Your task to perform on an android device: Check the weather Image 0: 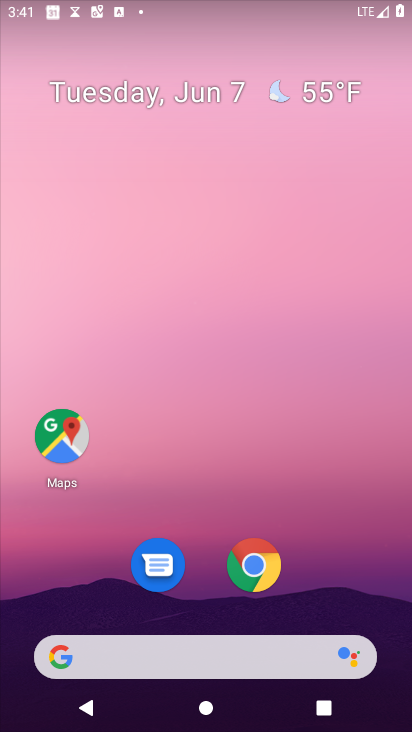
Step 0: drag from (194, 638) to (200, 55)
Your task to perform on an android device: Check the weather Image 1: 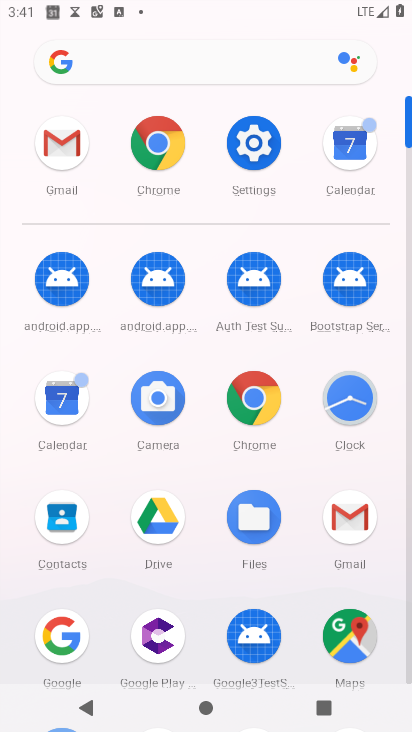
Step 1: click (68, 387)
Your task to perform on an android device: Check the weather Image 2: 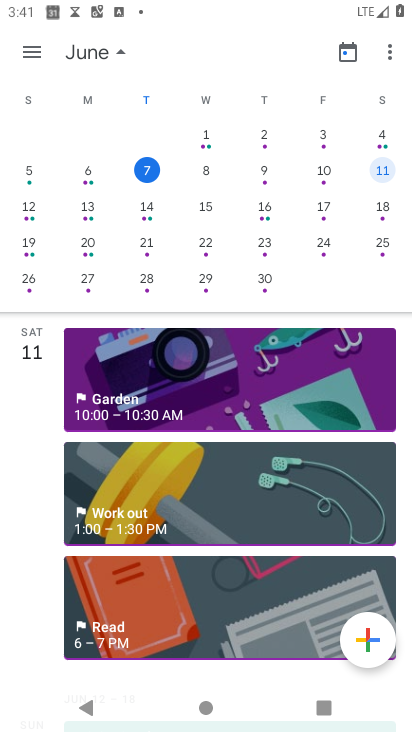
Step 2: press home button
Your task to perform on an android device: Check the weather Image 3: 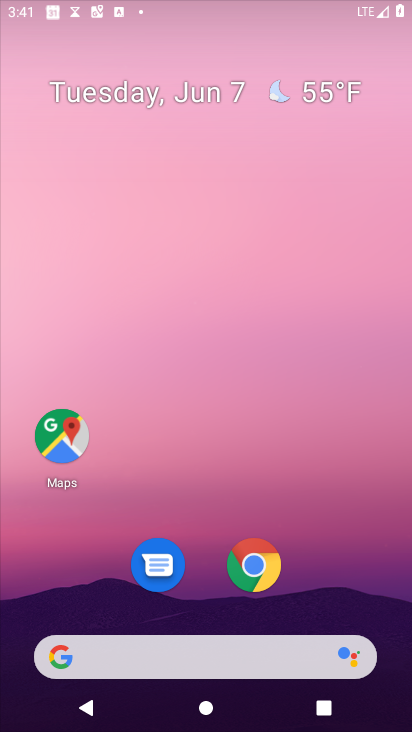
Step 3: drag from (14, 187) to (394, 217)
Your task to perform on an android device: Check the weather Image 4: 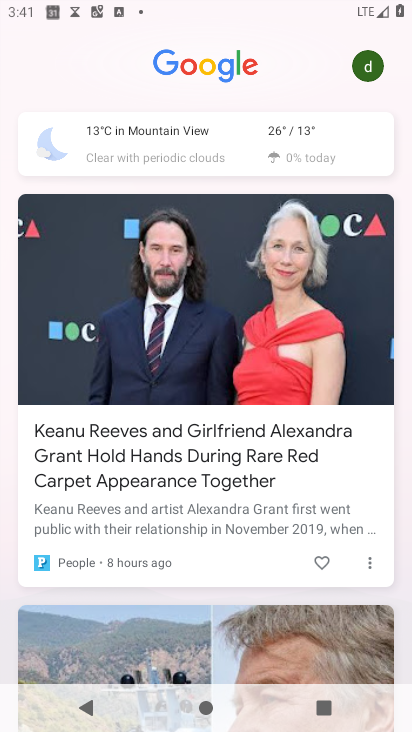
Step 4: click (172, 159)
Your task to perform on an android device: Check the weather Image 5: 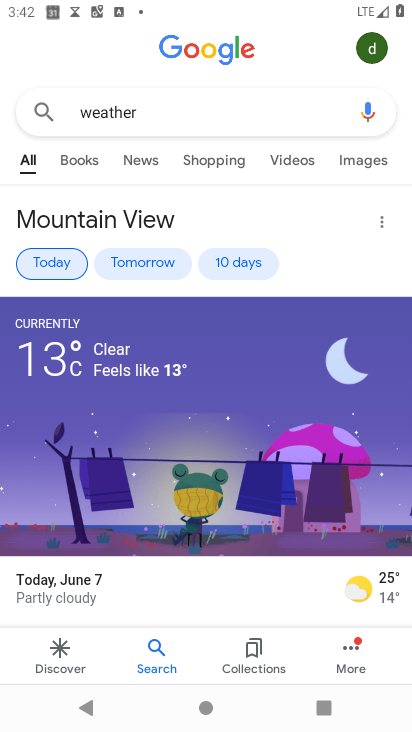
Step 5: task complete